Your task to perform on an android device: change alarm snooze length Image 0: 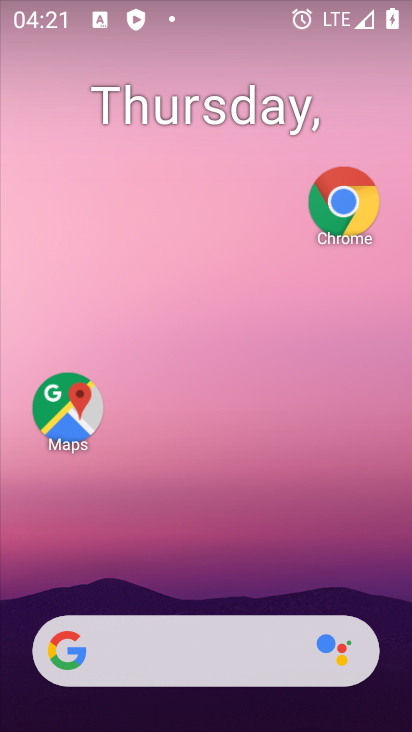
Step 0: drag from (251, 546) to (300, 9)
Your task to perform on an android device: change alarm snooze length Image 1: 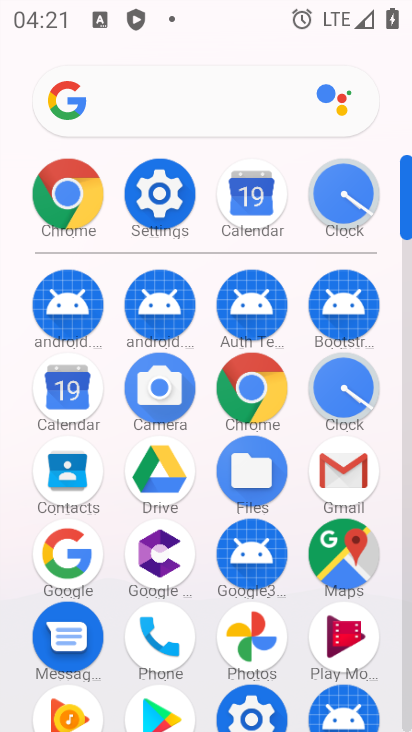
Step 1: click (346, 403)
Your task to perform on an android device: change alarm snooze length Image 2: 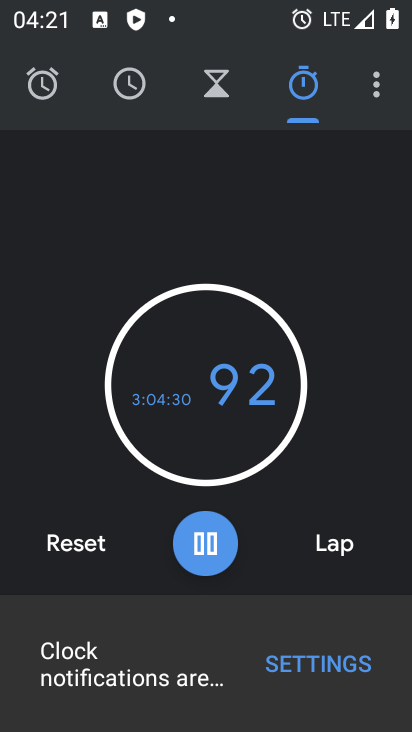
Step 2: click (385, 89)
Your task to perform on an android device: change alarm snooze length Image 3: 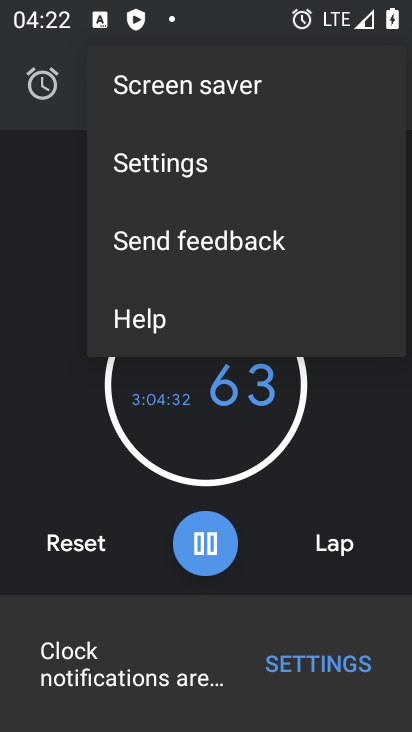
Step 3: click (169, 174)
Your task to perform on an android device: change alarm snooze length Image 4: 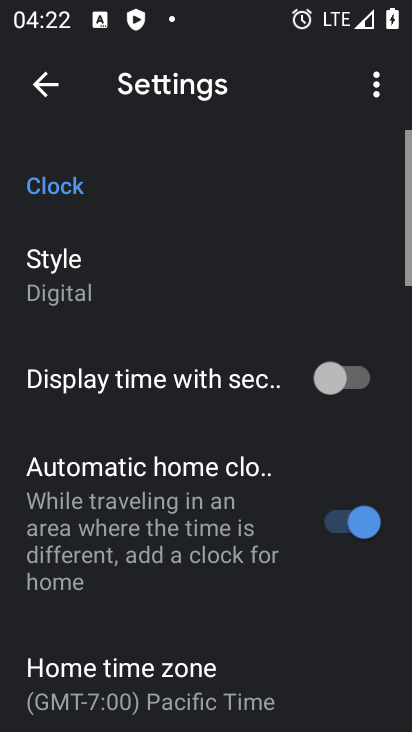
Step 4: drag from (269, 610) to (223, 149)
Your task to perform on an android device: change alarm snooze length Image 5: 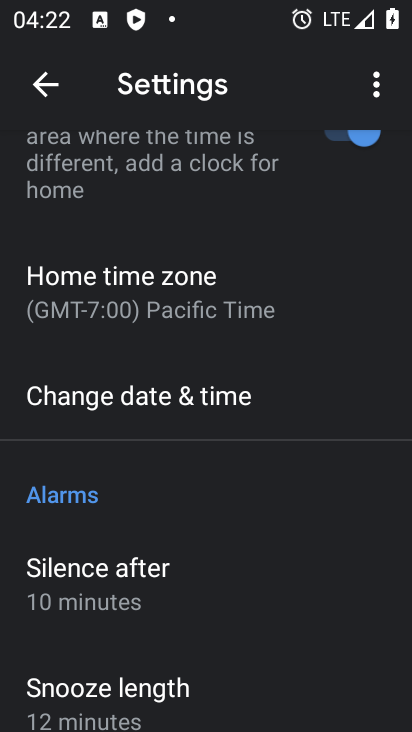
Step 5: drag from (224, 634) to (228, 390)
Your task to perform on an android device: change alarm snooze length Image 6: 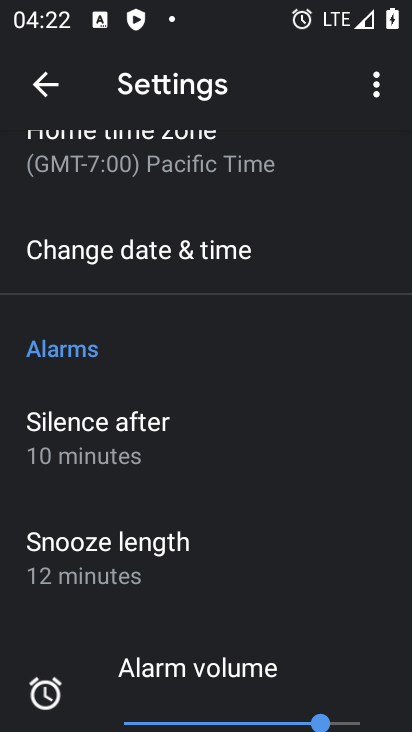
Step 6: click (199, 528)
Your task to perform on an android device: change alarm snooze length Image 7: 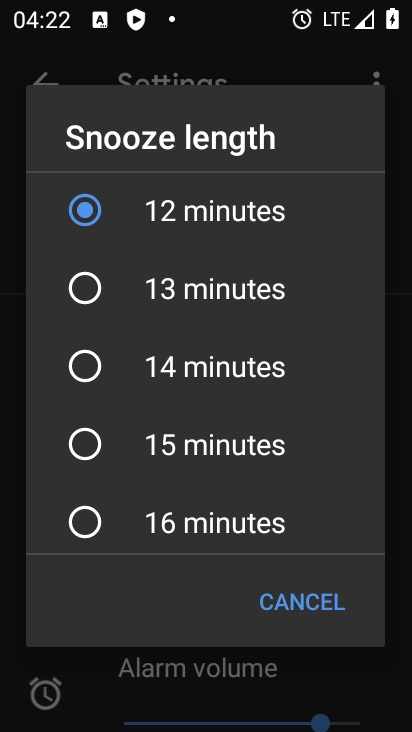
Step 7: click (106, 288)
Your task to perform on an android device: change alarm snooze length Image 8: 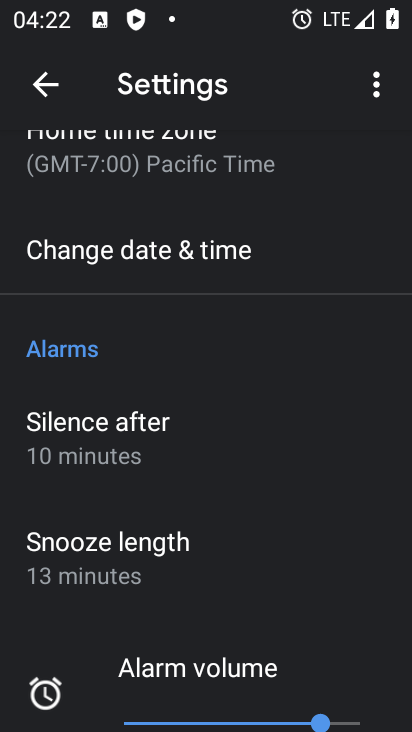
Step 8: task complete